Your task to perform on an android device: check the backup settings in the google photos Image 0: 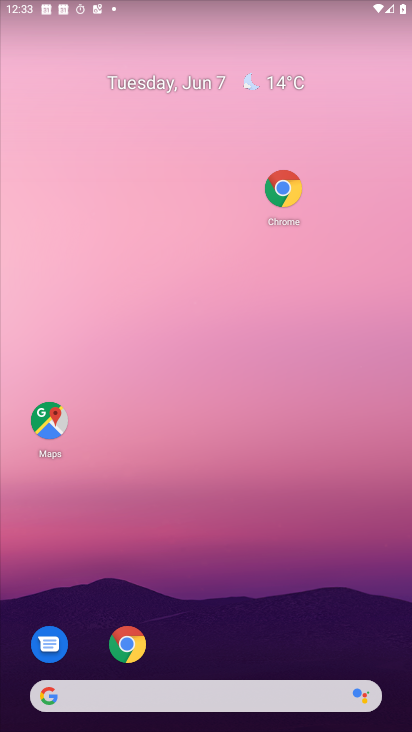
Step 0: drag from (310, 580) to (298, 110)
Your task to perform on an android device: check the backup settings in the google photos Image 1: 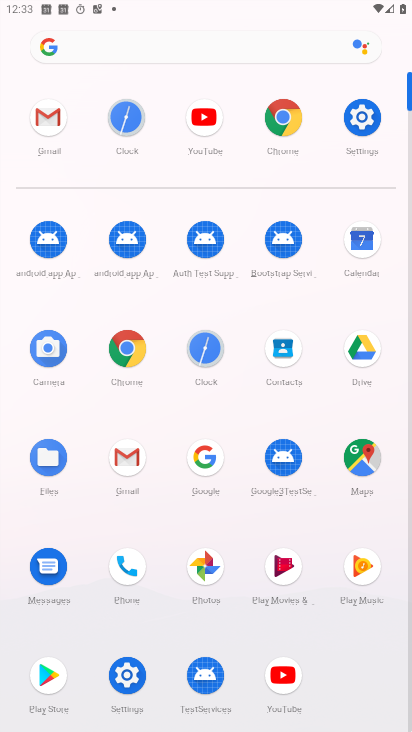
Step 1: click (208, 558)
Your task to perform on an android device: check the backup settings in the google photos Image 2: 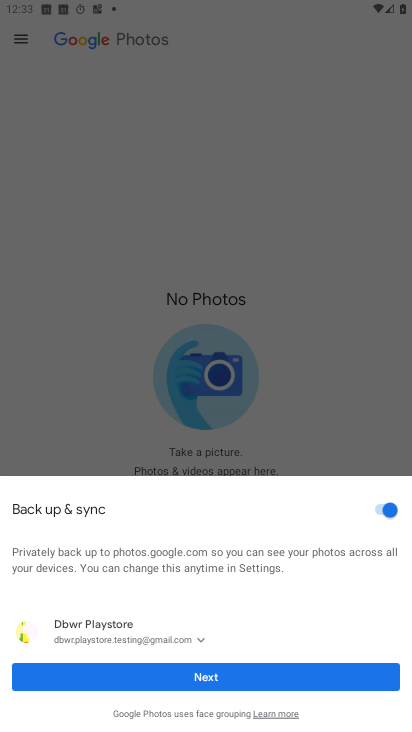
Step 2: click (301, 673)
Your task to perform on an android device: check the backup settings in the google photos Image 3: 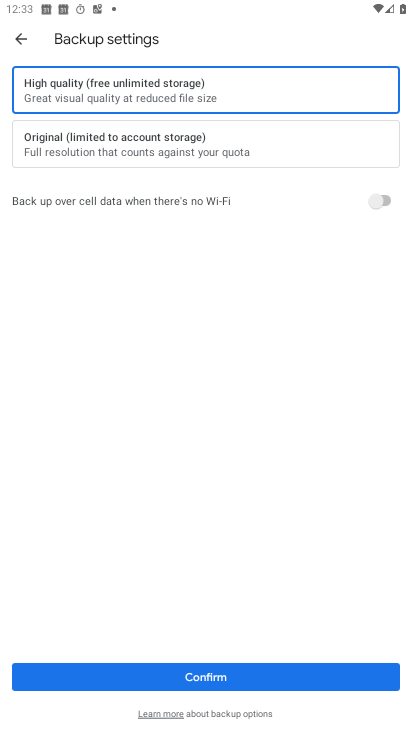
Step 3: task complete